Your task to perform on an android device: Open Wikipedia Image 0: 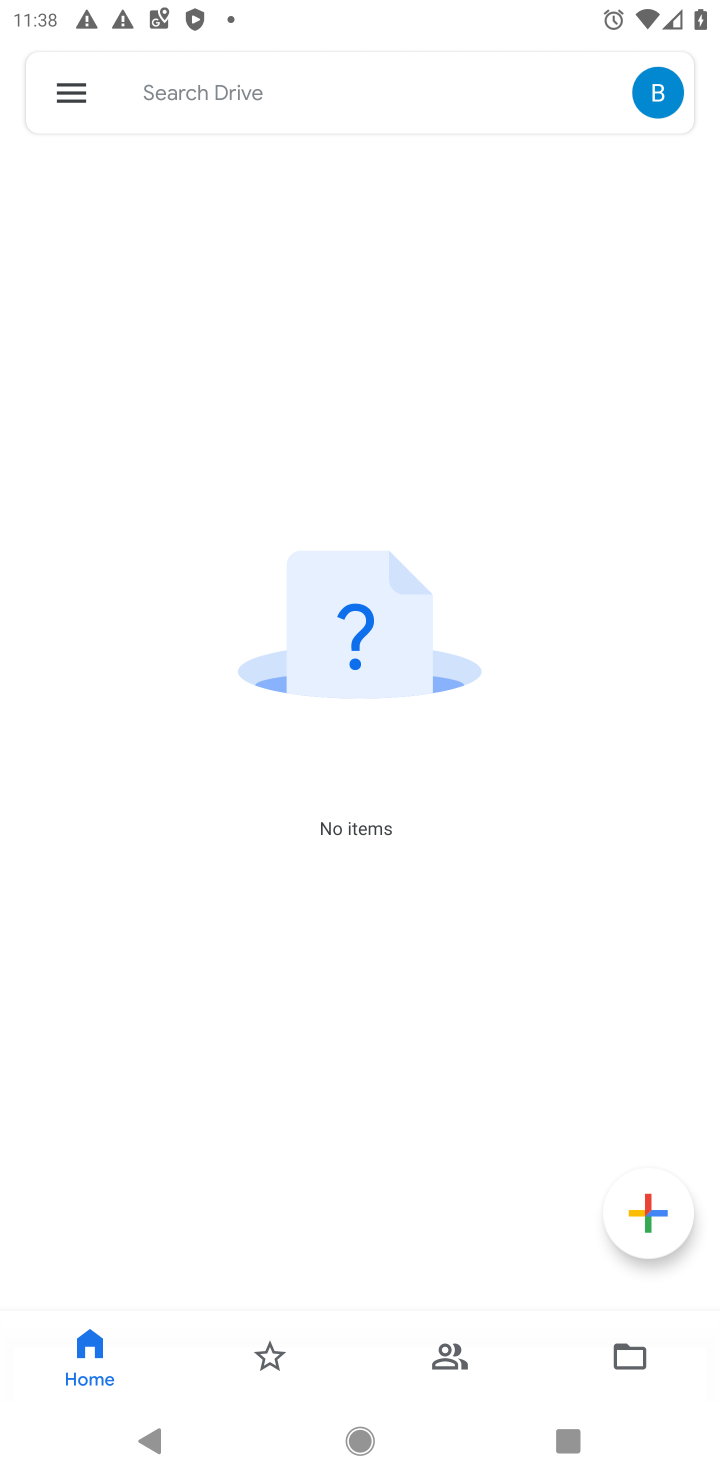
Step 0: press home button
Your task to perform on an android device: Open Wikipedia Image 1: 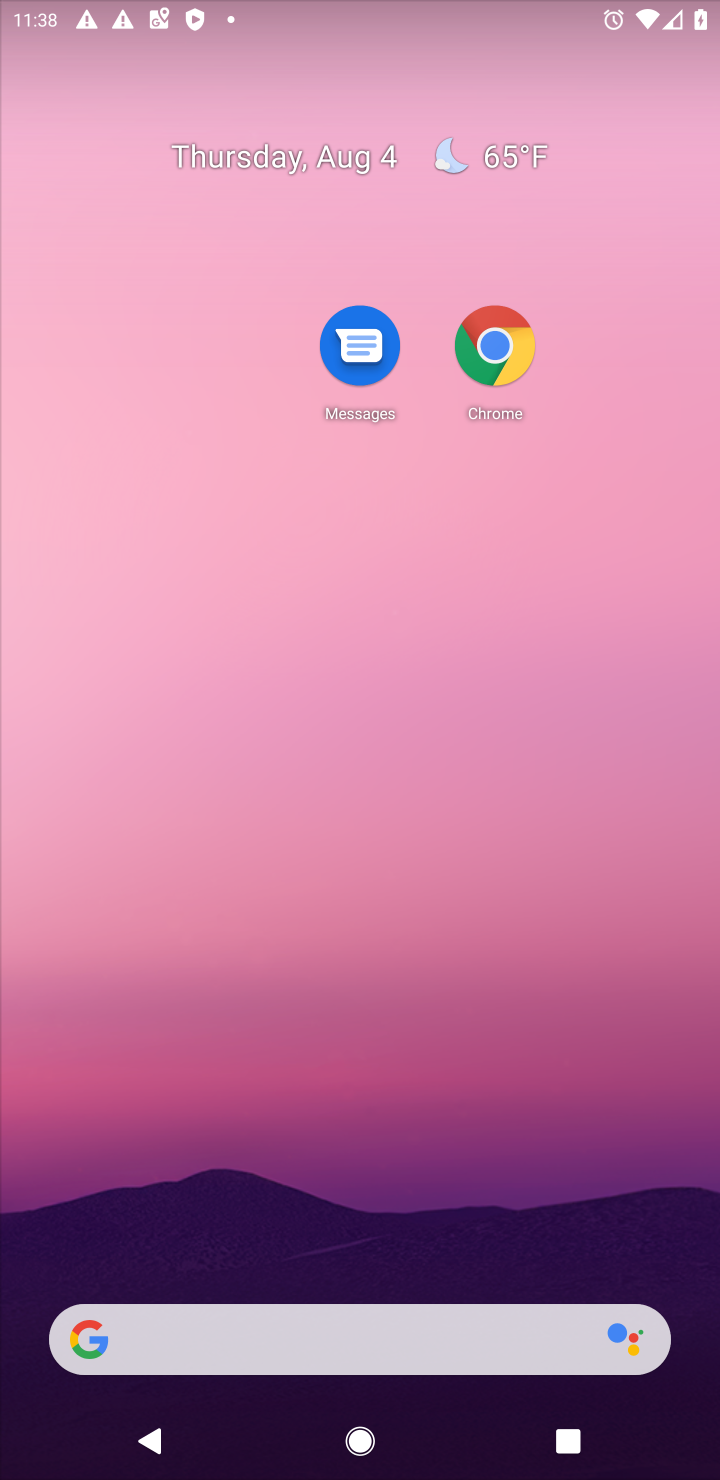
Step 1: drag from (380, 908) to (444, 146)
Your task to perform on an android device: Open Wikipedia Image 2: 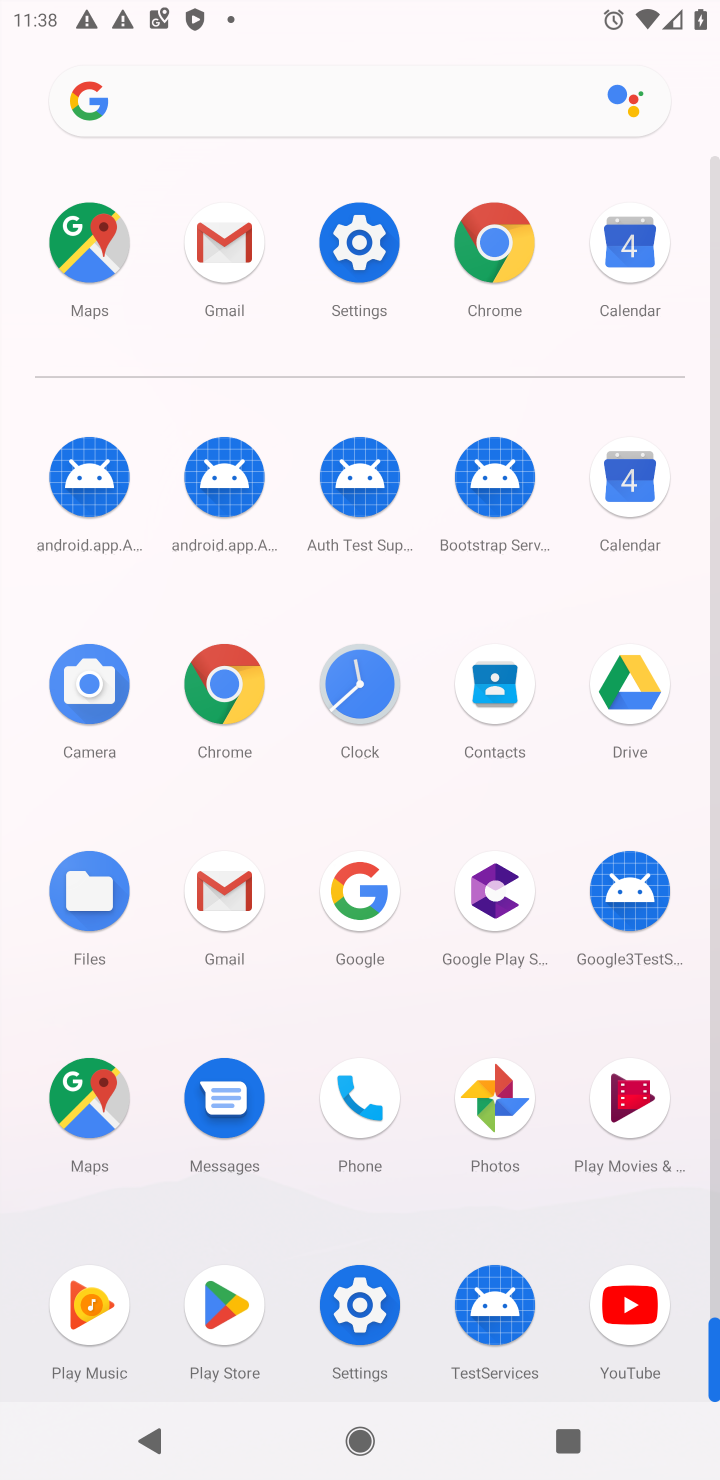
Step 2: click (490, 238)
Your task to perform on an android device: Open Wikipedia Image 3: 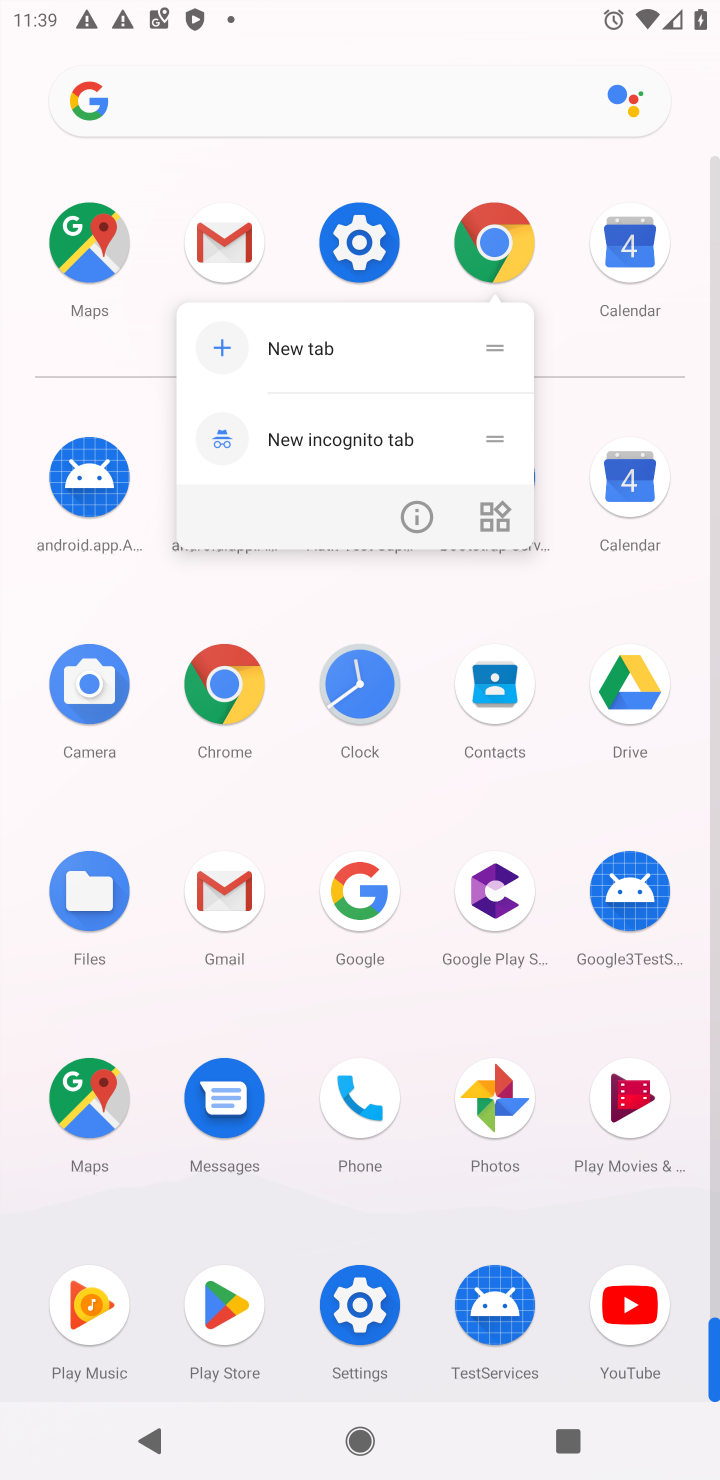
Step 3: click (490, 254)
Your task to perform on an android device: Open Wikipedia Image 4: 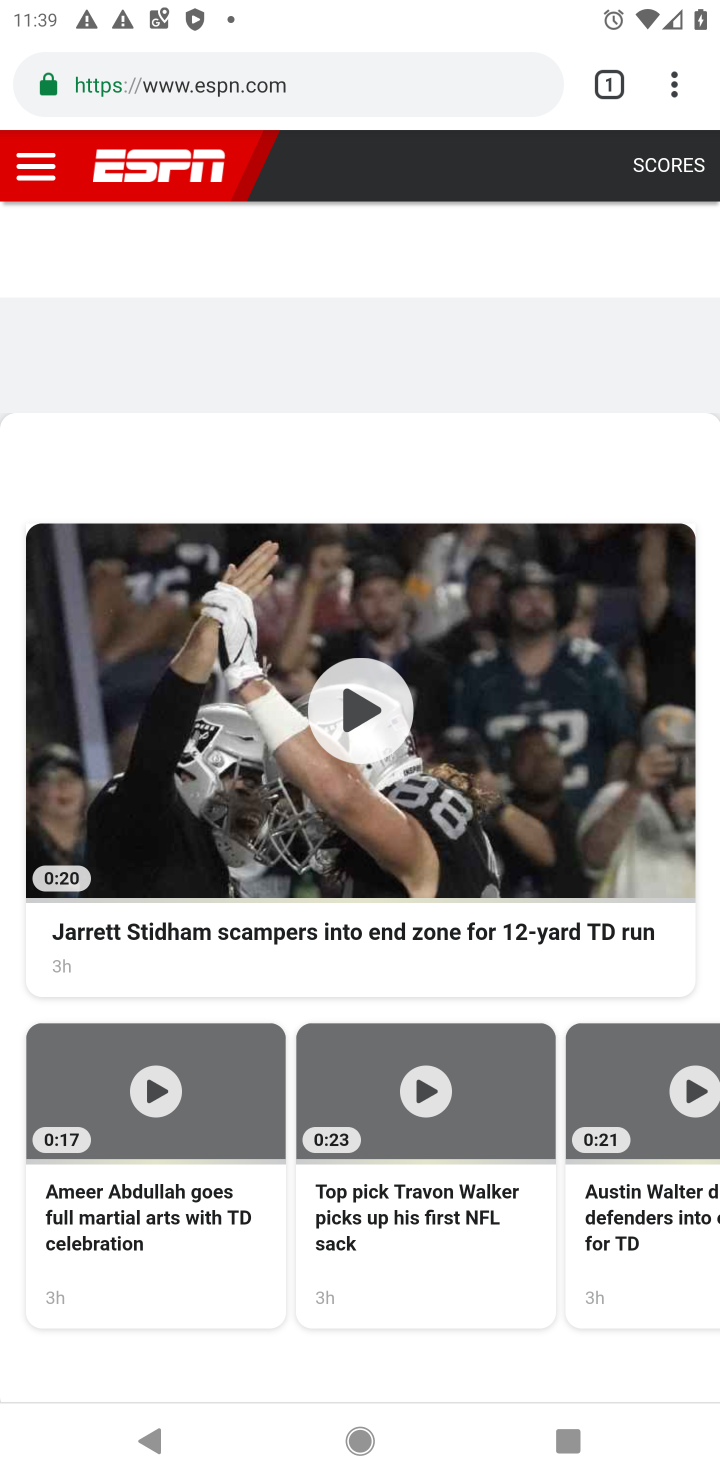
Step 4: click (406, 74)
Your task to perform on an android device: Open Wikipedia Image 5: 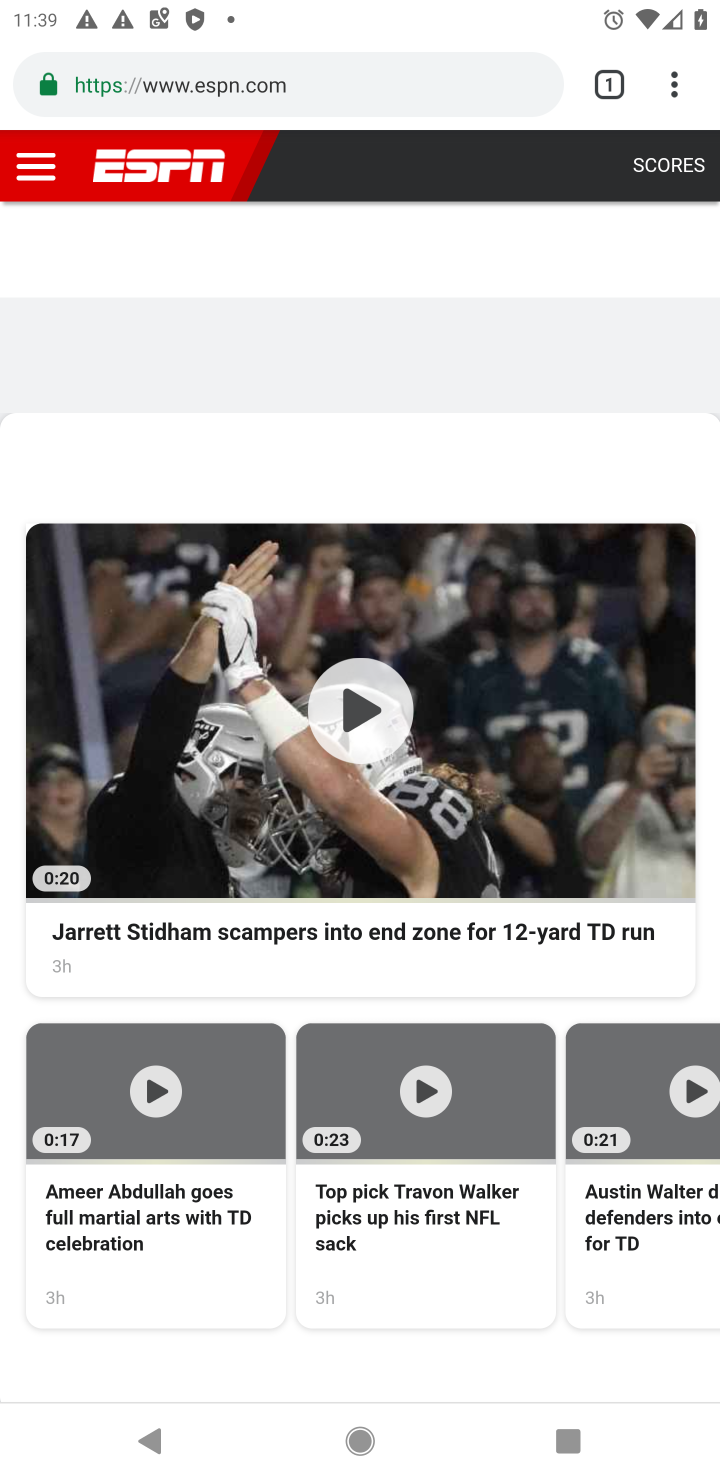
Step 5: click (300, 80)
Your task to perform on an android device: Open Wikipedia Image 6: 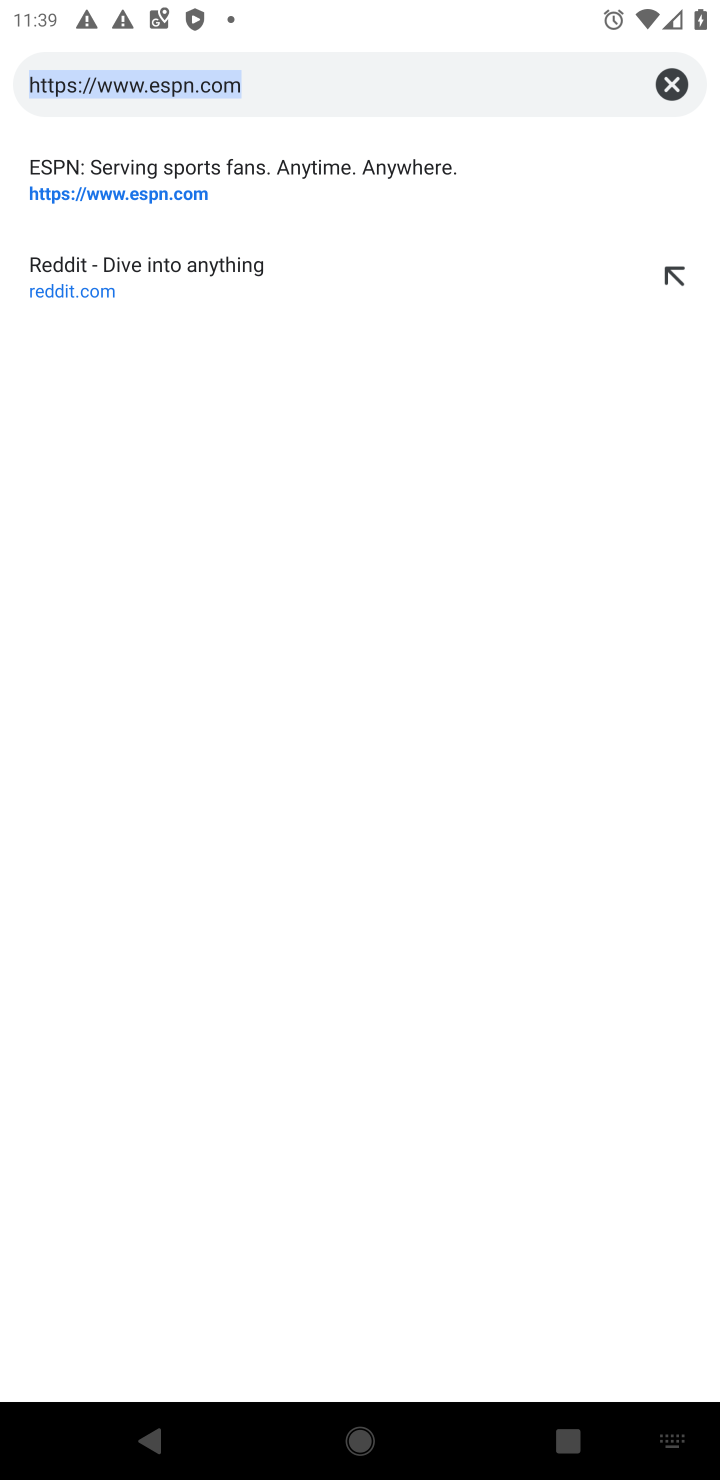
Step 6: click (666, 82)
Your task to perform on an android device: Open Wikipedia Image 7: 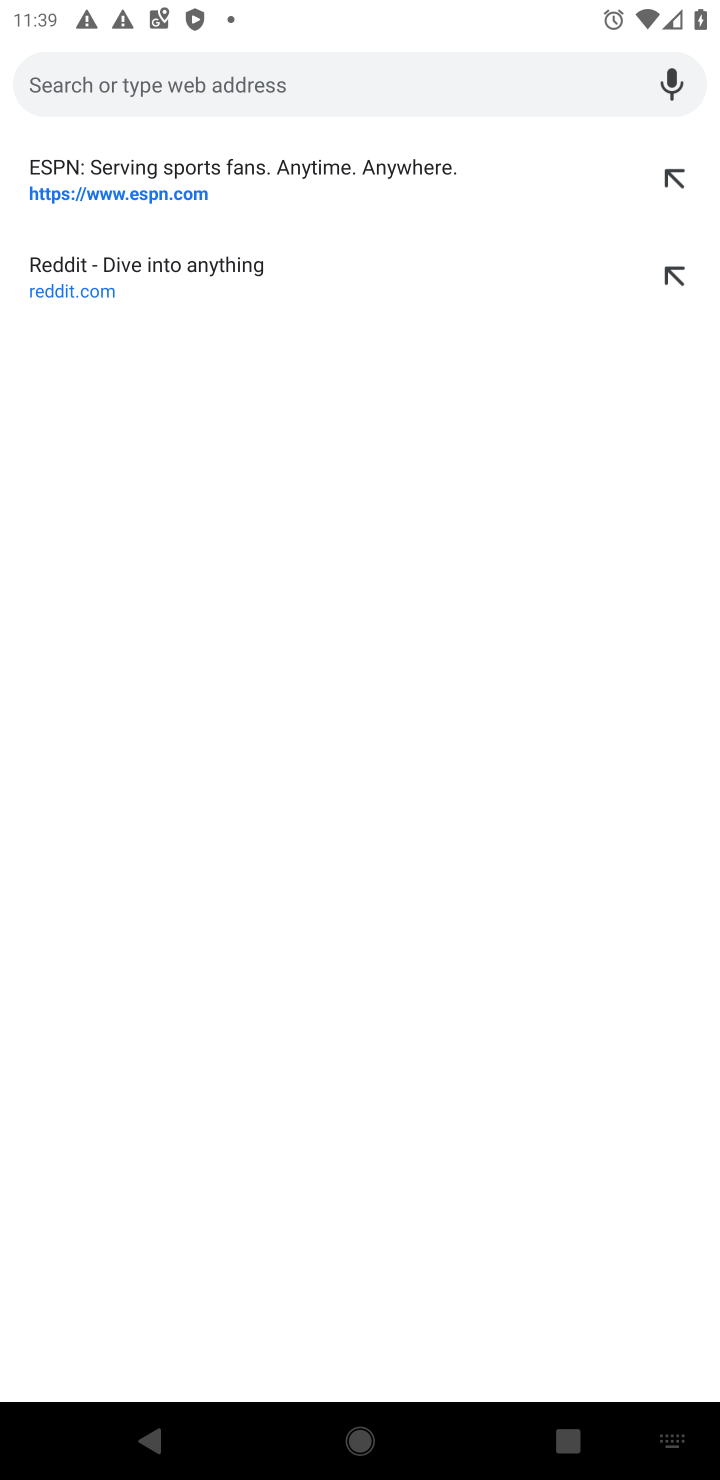
Step 7: type "Wikipedia"
Your task to perform on an android device: Open Wikipedia Image 8: 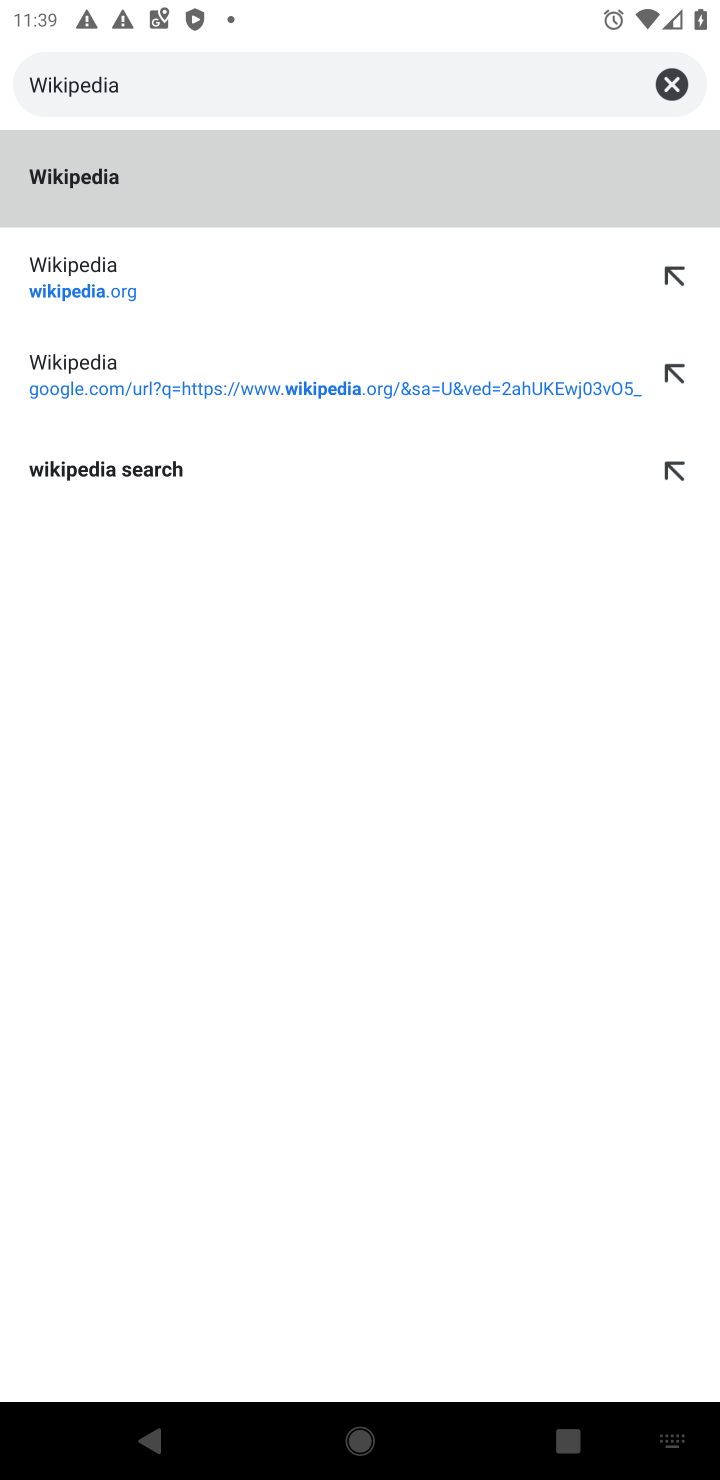
Step 8: click (97, 316)
Your task to perform on an android device: Open Wikipedia Image 9: 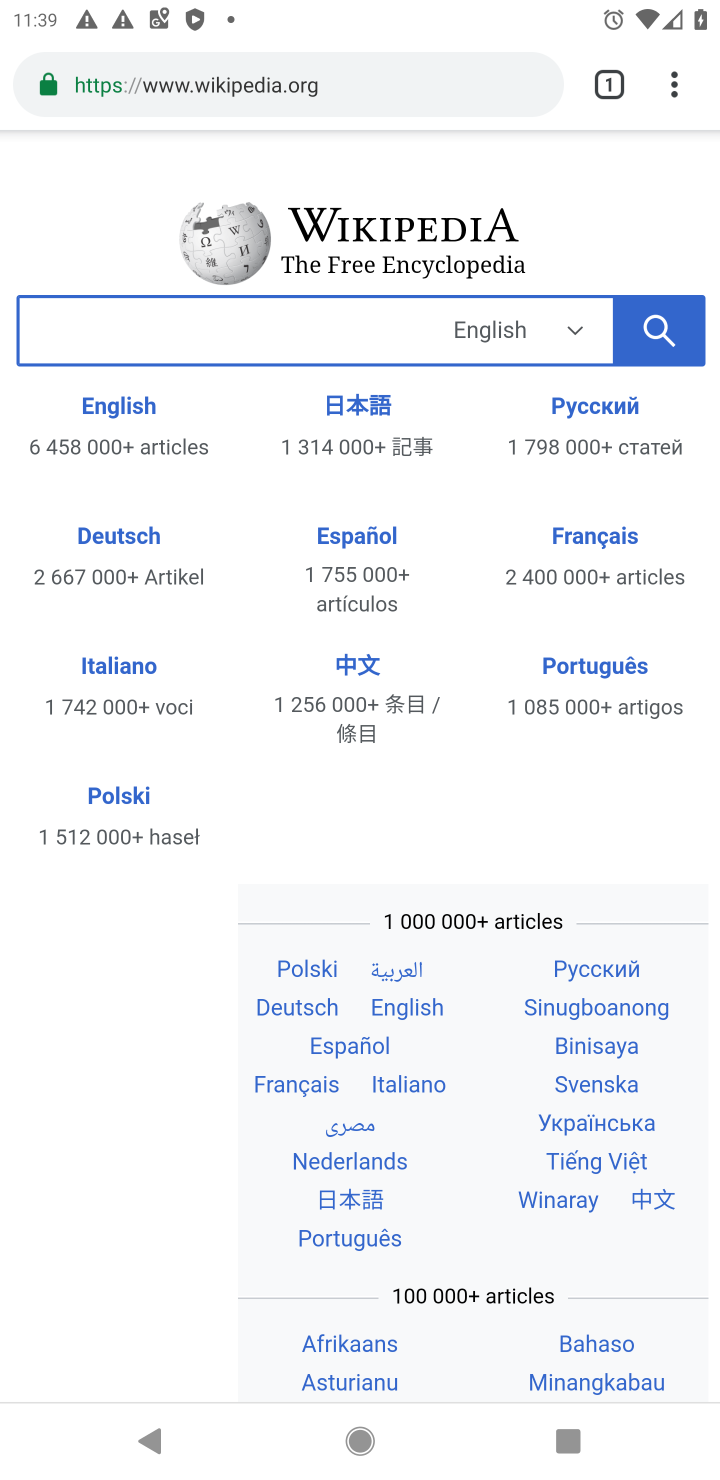
Step 9: task complete